Your task to perform on an android device: What's the weather? Image 0: 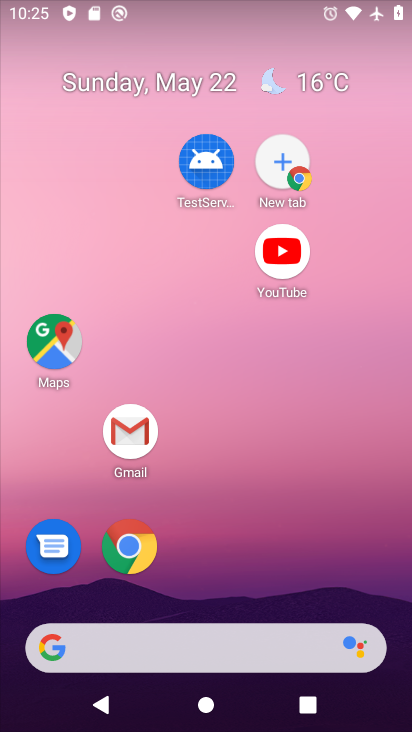
Step 0: drag from (11, 196) to (385, 348)
Your task to perform on an android device: What's the weather? Image 1: 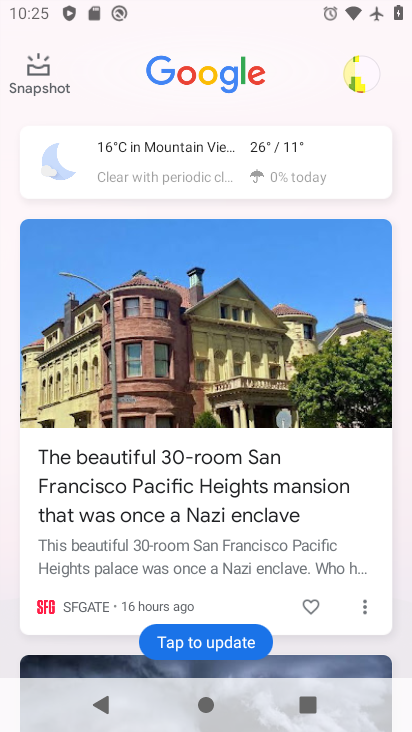
Step 1: click (101, 159)
Your task to perform on an android device: What's the weather? Image 2: 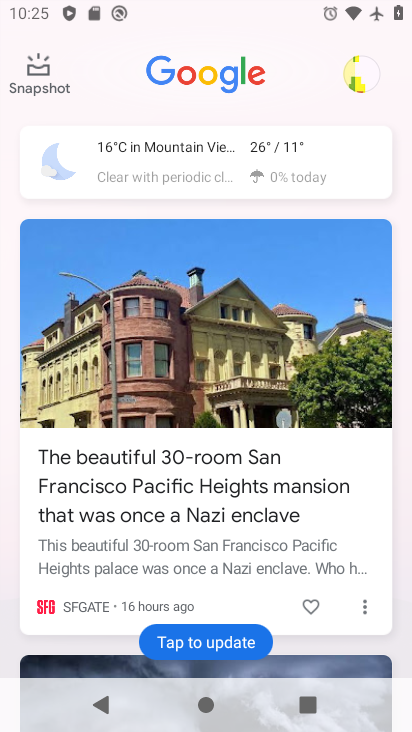
Step 2: click (217, 128)
Your task to perform on an android device: What's the weather? Image 3: 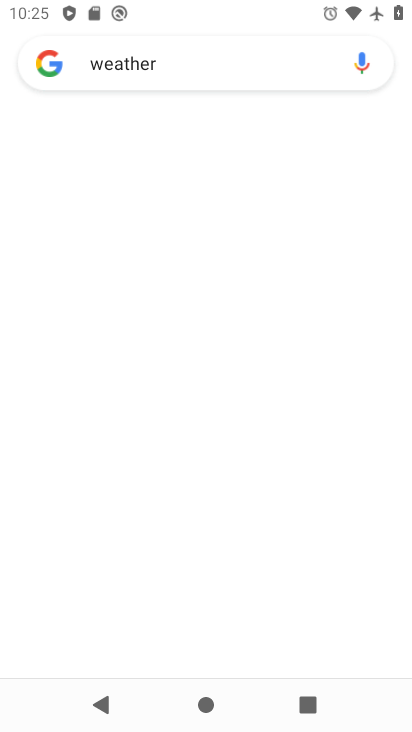
Step 3: click (209, 166)
Your task to perform on an android device: What's the weather? Image 4: 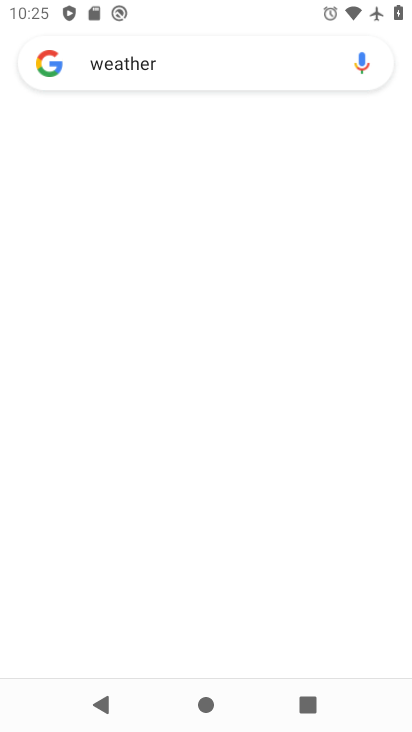
Step 4: click (209, 166)
Your task to perform on an android device: What's the weather? Image 5: 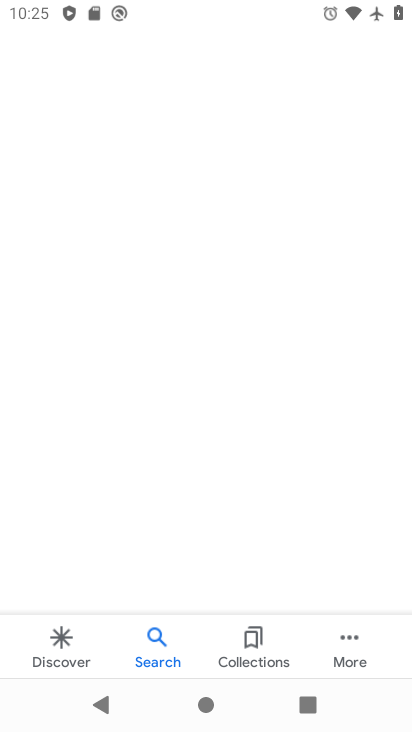
Step 5: click (209, 166)
Your task to perform on an android device: What's the weather? Image 6: 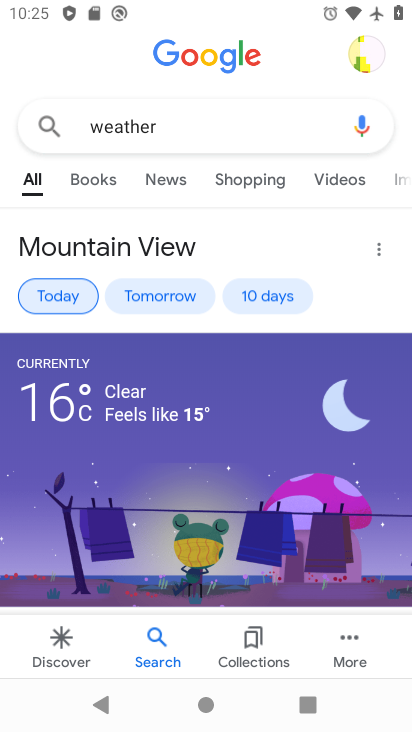
Step 6: task complete